Your task to perform on an android device: choose inbox layout in the gmail app Image 0: 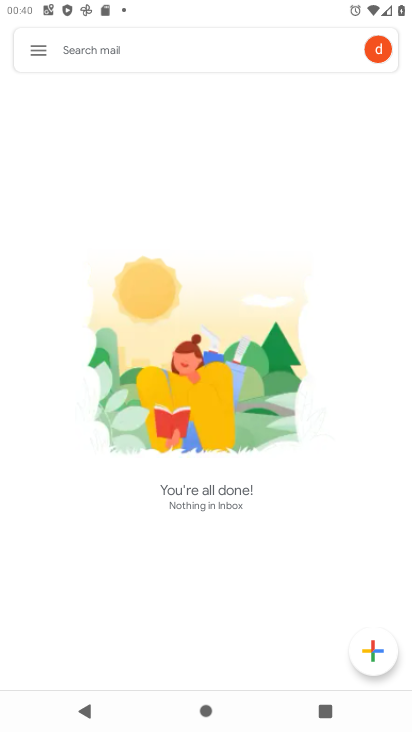
Step 0: press home button
Your task to perform on an android device: choose inbox layout in the gmail app Image 1: 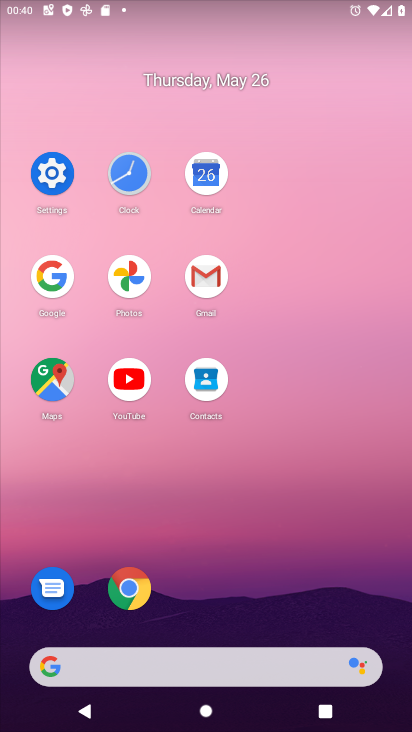
Step 1: click (196, 268)
Your task to perform on an android device: choose inbox layout in the gmail app Image 2: 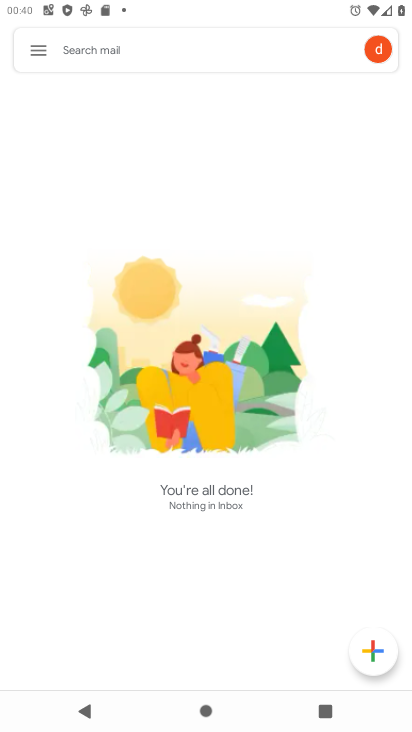
Step 2: click (55, 56)
Your task to perform on an android device: choose inbox layout in the gmail app Image 3: 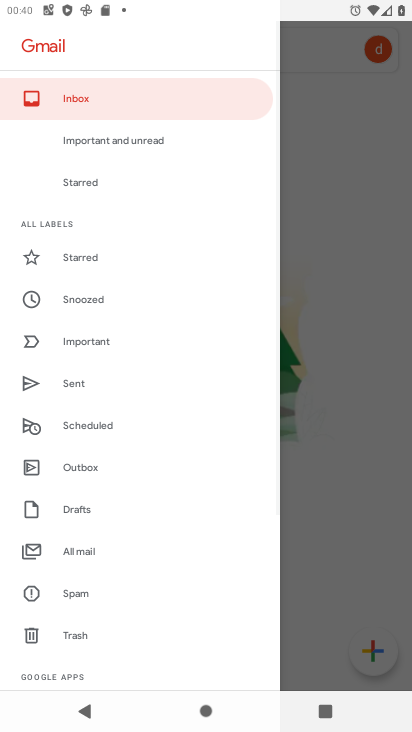
Step 3: drag from (104, 554) to (163, 131)
Your task to perform on an android device: choose inbox layout in the gmail app Image 4: 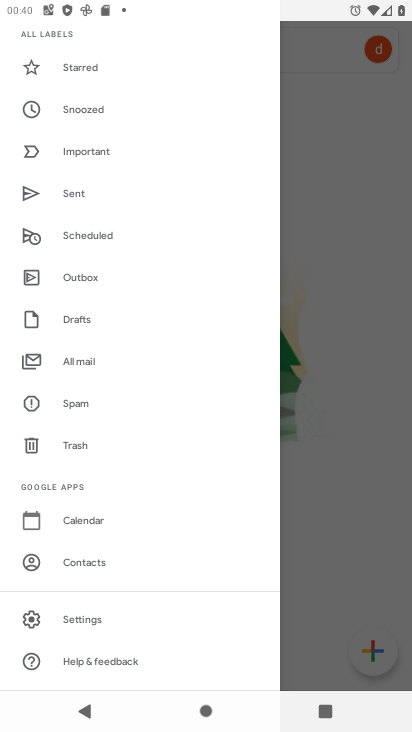
Step 4: click (96, 638)
Your task to perform on an android device: choose inbox layout in the gmail app Image 5: 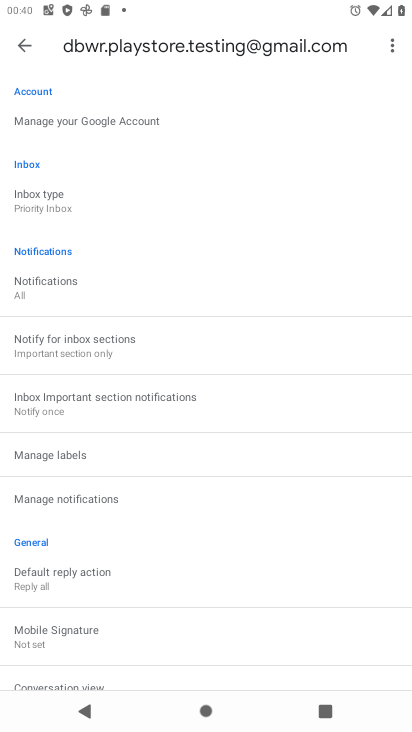
Step 5: click (76, 209)
Your task to perform on an android device: choose inbox layout in the gmail app Image 6: 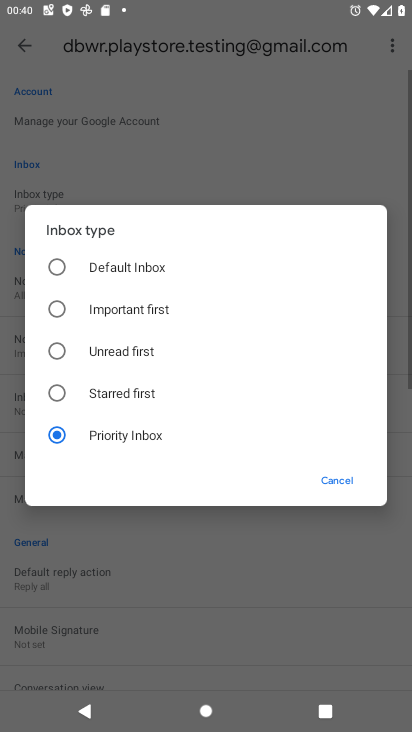
Step 6: task complete